Your task to perform on an android device: Search for "asus zenbook" on ebay.com, select the first entry, add it to the cart, then select checkout. Image 0: 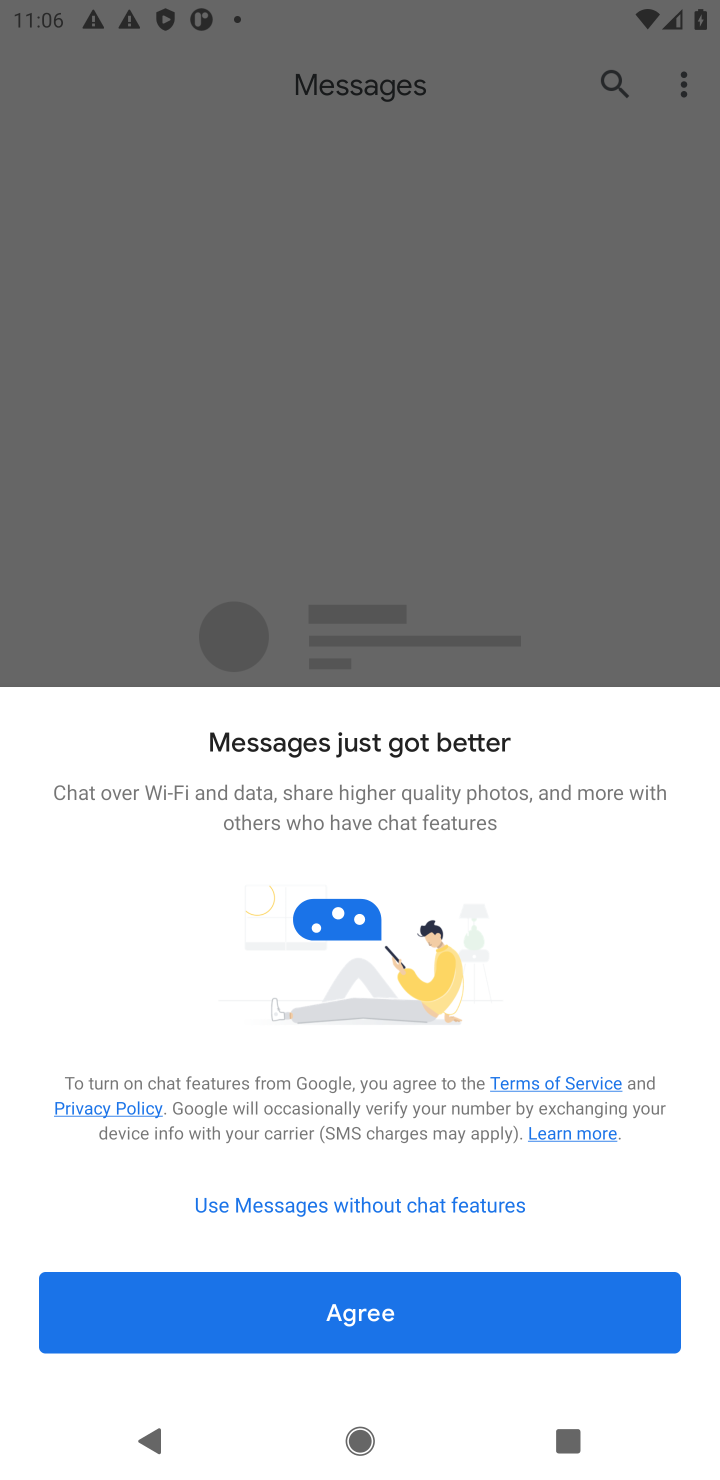
Step 0: press home button
Your task to perform on an android device: Search for "asus zenbook" on ebay.com, select the first entry, add it to the cart, then select checkout. Image 1: 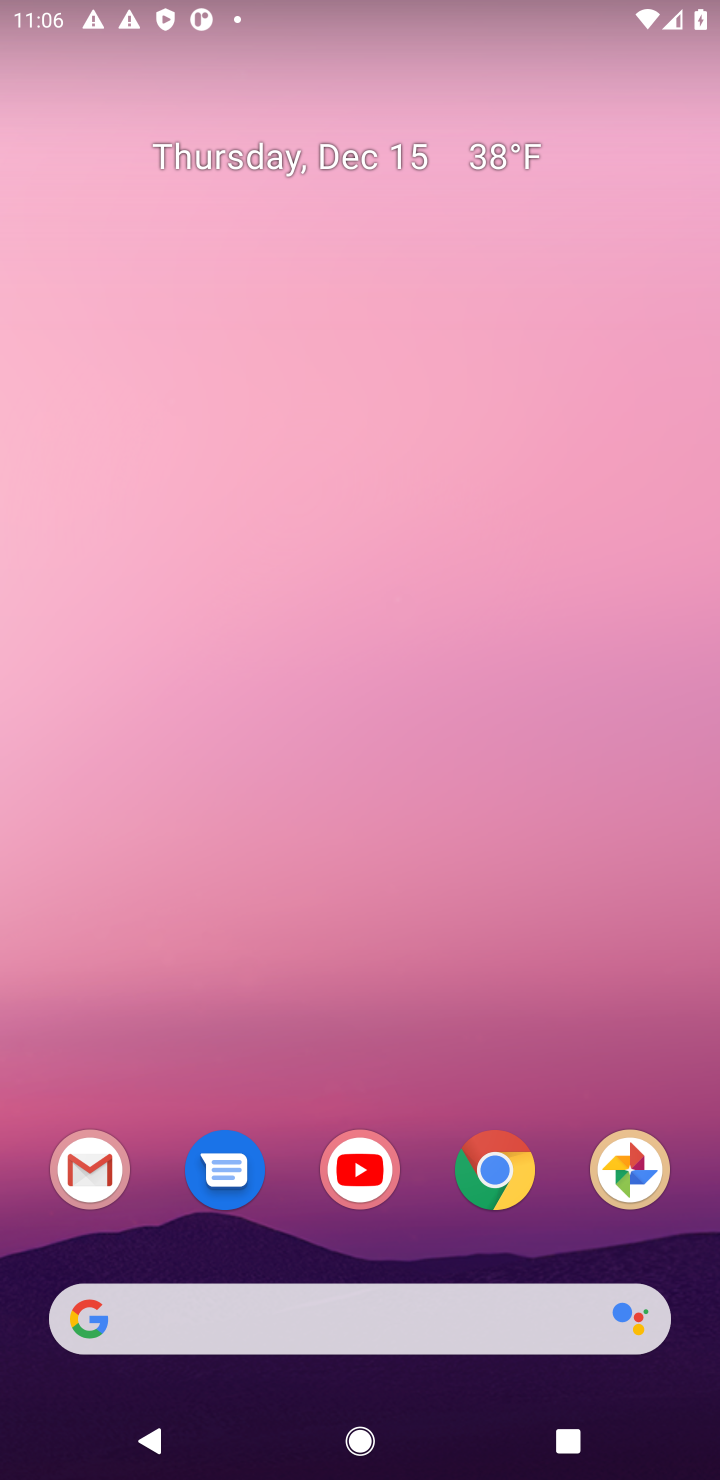
Step 1: click (500, 1152)
Your task to perform on an android device: Search for "asus zenbook" on ebay.com, select the first entry, add it to the cart, then select checkout. Image 2: 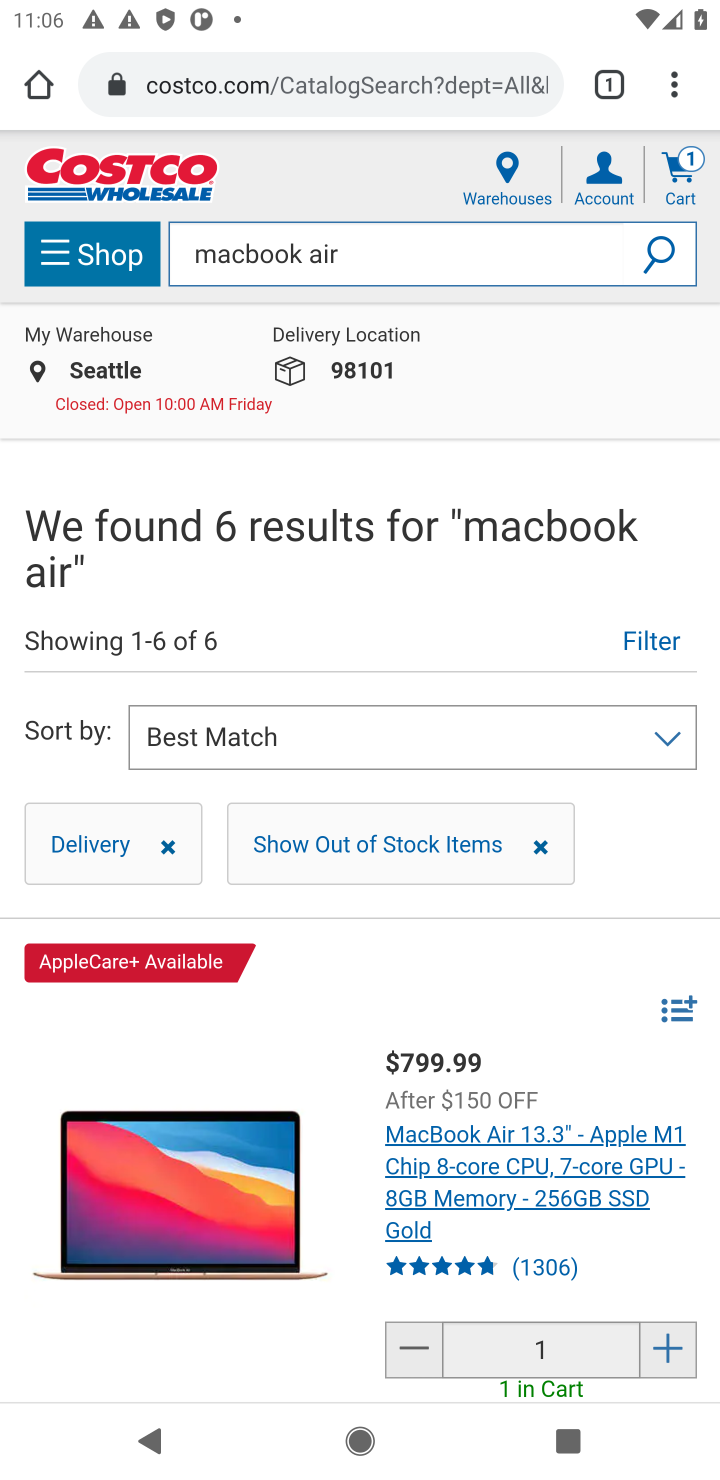
Step 2: click (240, 79)
Your task to perform on an android device: Search for "asus zenbook" on ebay.com, select the first entry, add it to the cart, then select checkout. Image 3: 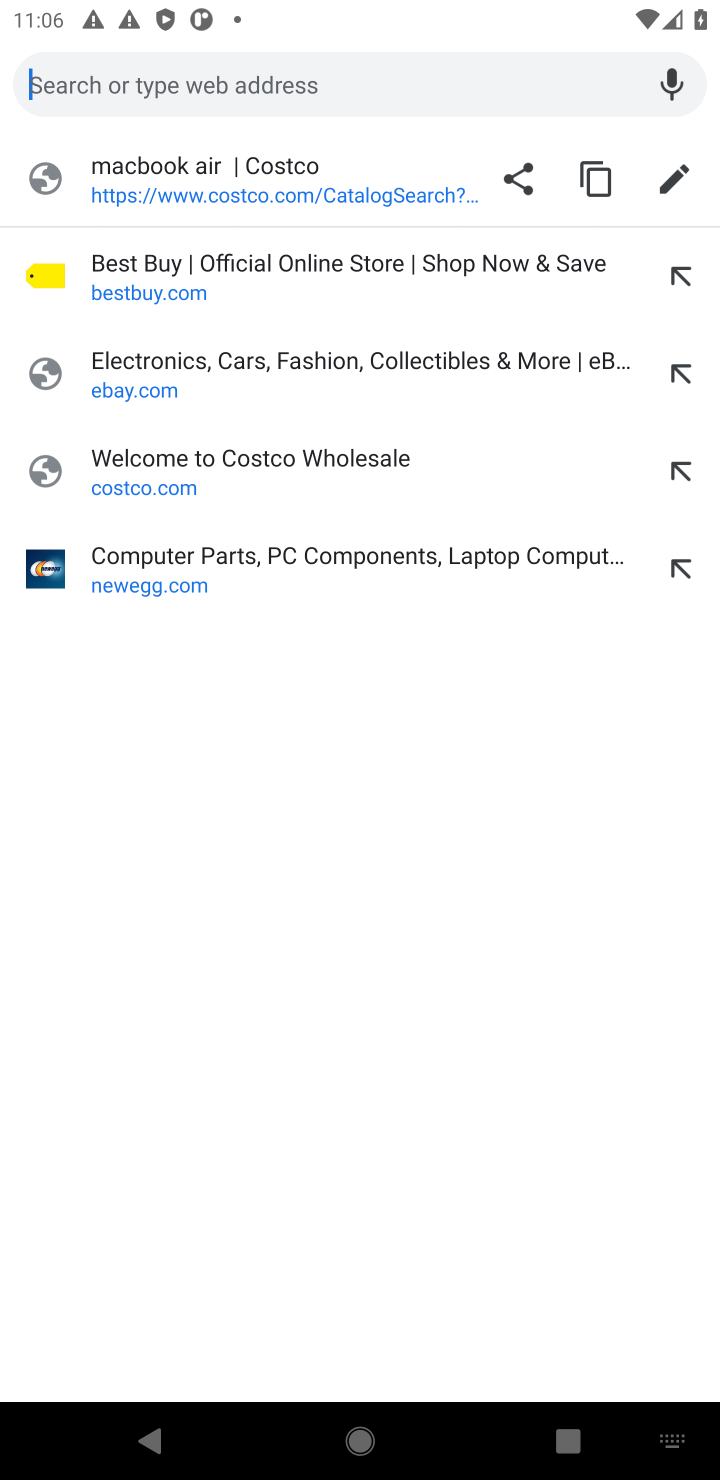
Step 3: click (136, 376)
Your task to perform on an android device: Search for "asus zenbook" on ebay.com, select the first entry, add it to the cart, then select checkout. Image 4: 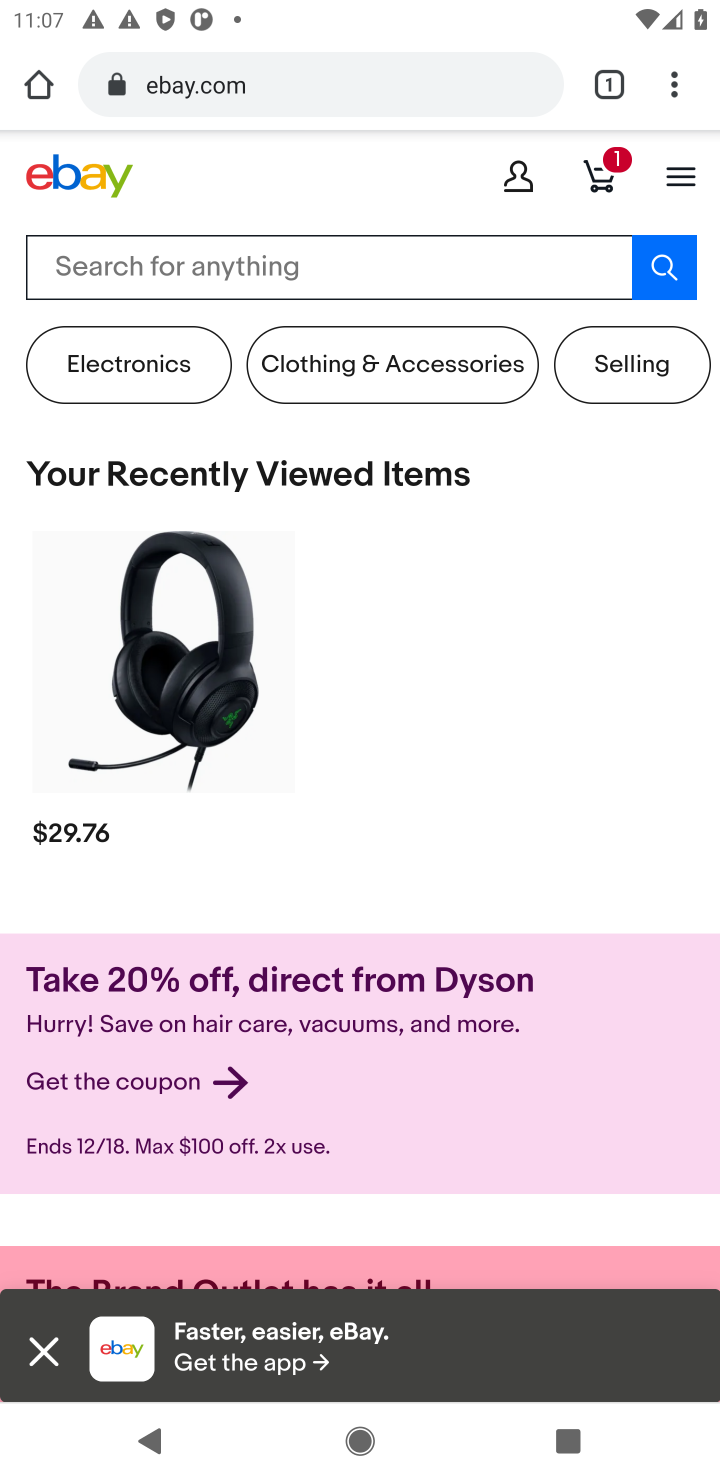
Step 4: click (92, 272)
Your task to perform on an android device: Search for "asus zenbook" on ebay.com, select the first entry, add it to the cart, then select checkout. Image 5: 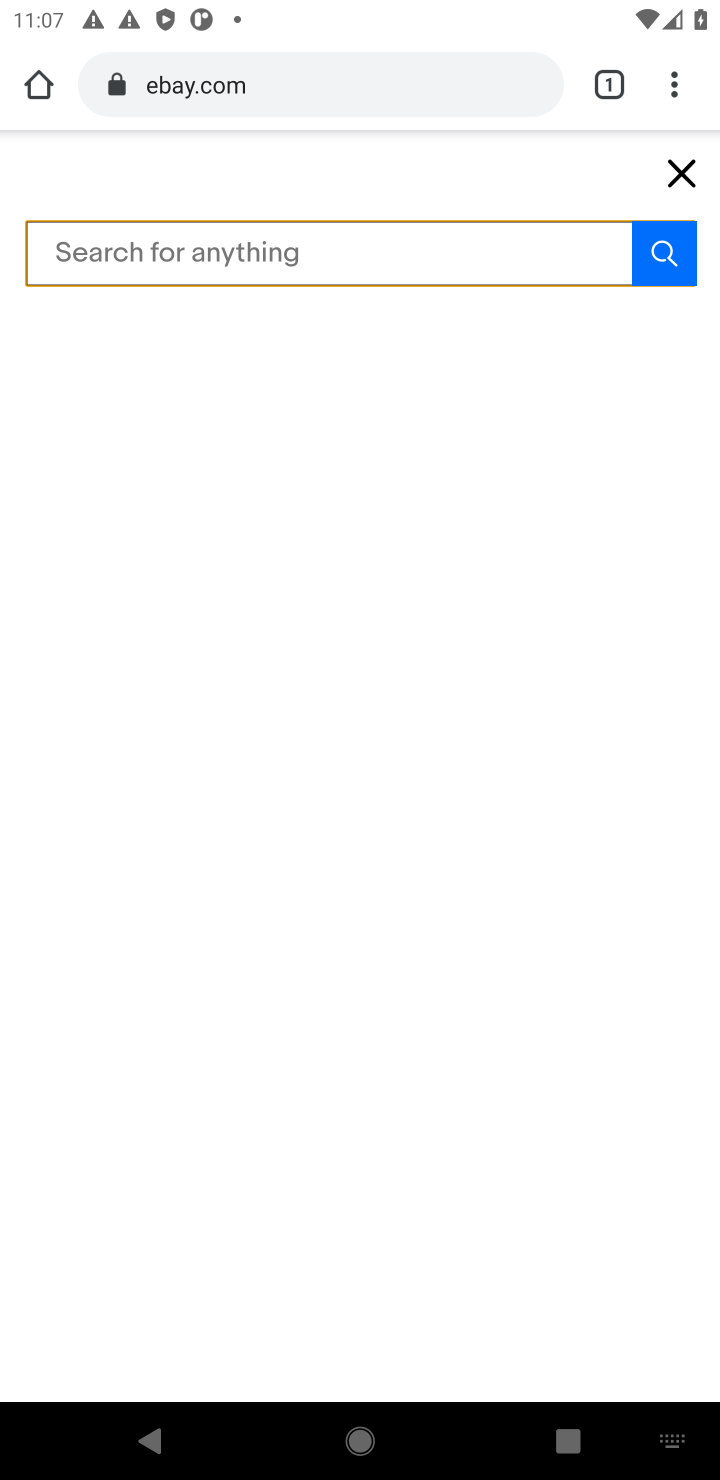
Step 5: click (238, 254)
Your task to perform on an android device: Search for "asus zenbook" on ebay.com, select the first entry, add it to the cart, then select checkout. Image 6: 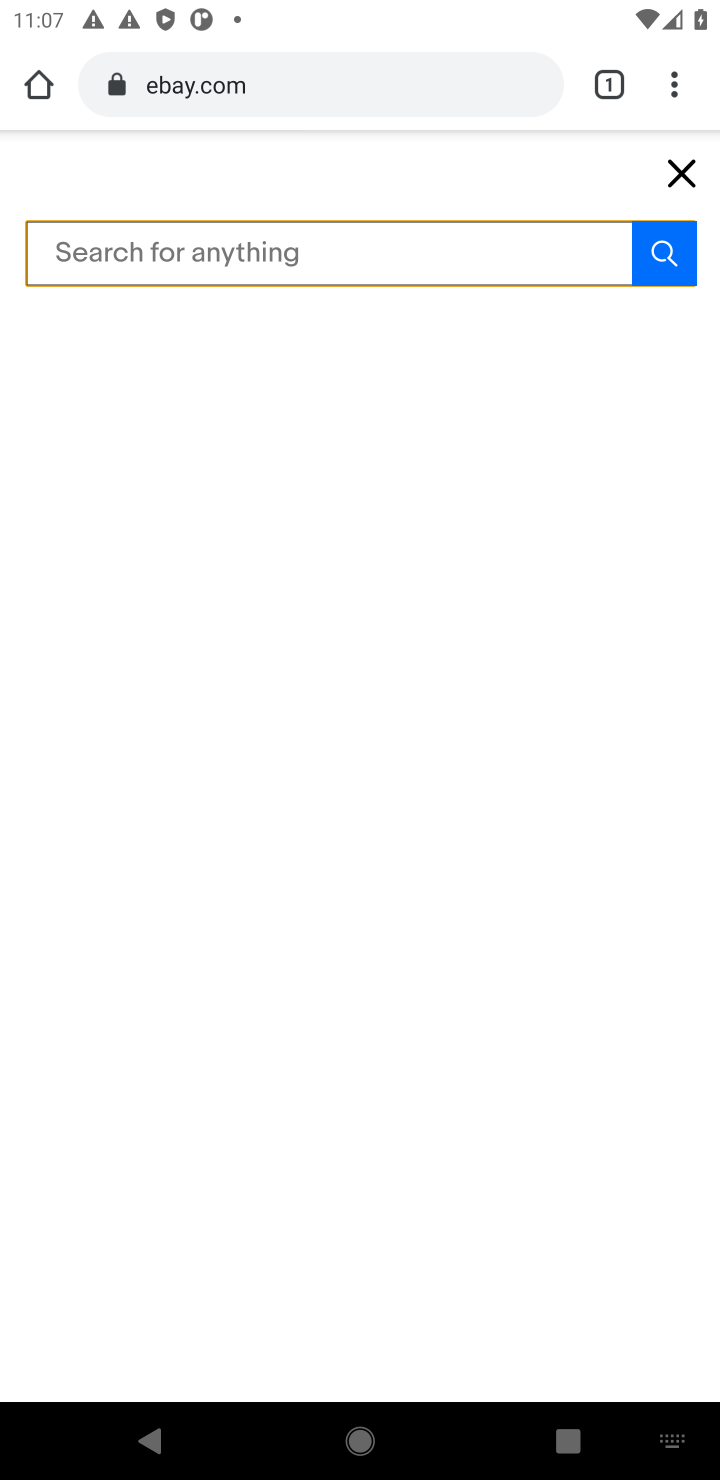
Step 6: type "asus zenbook"
Your task to perform on an android device: Search for "asus zenbook" on ebay.com, select the first entry, add it to the cart, then select checkout. Image 7: 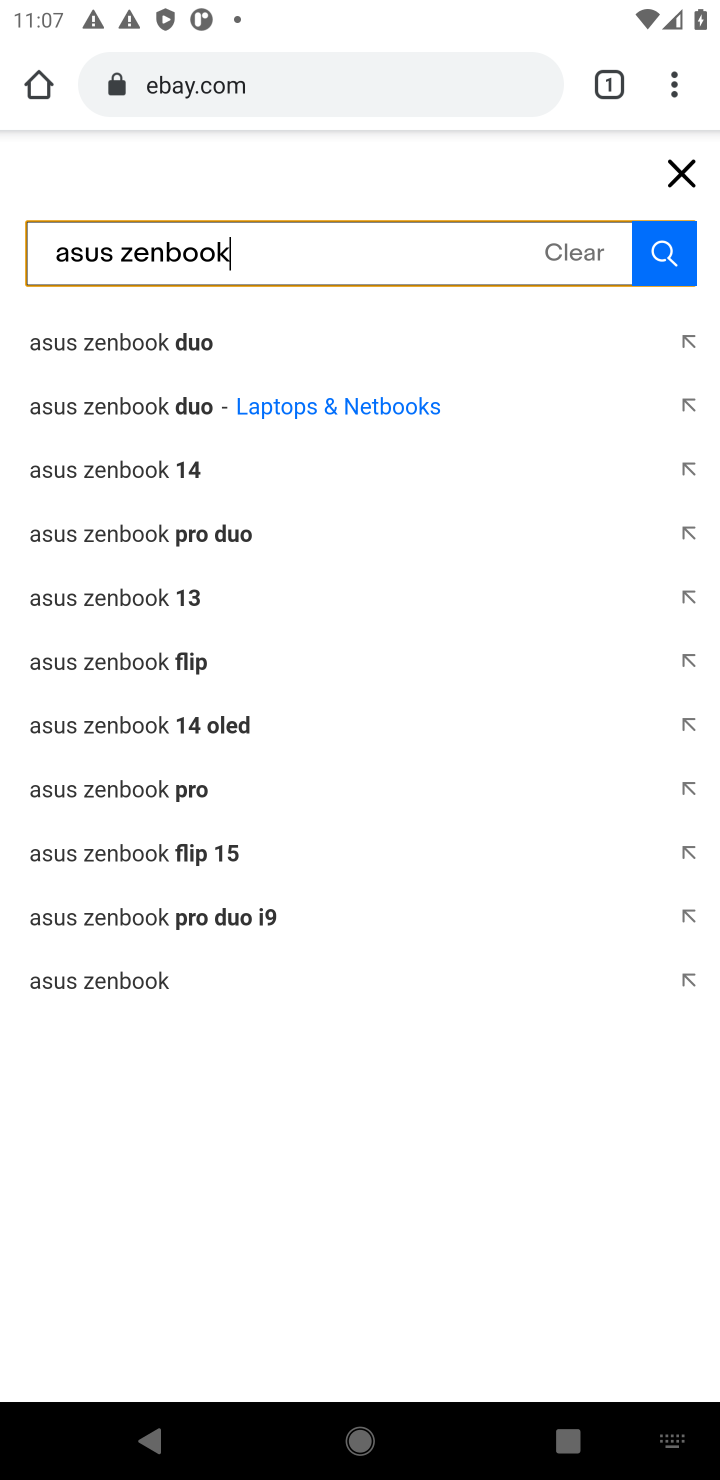
Step 7: click (111, 984)
Your task to perform on an android device: Search for "asus zenbook" on ebay.com, select the first entry, add it to the cart, then select checkout. Image 8: 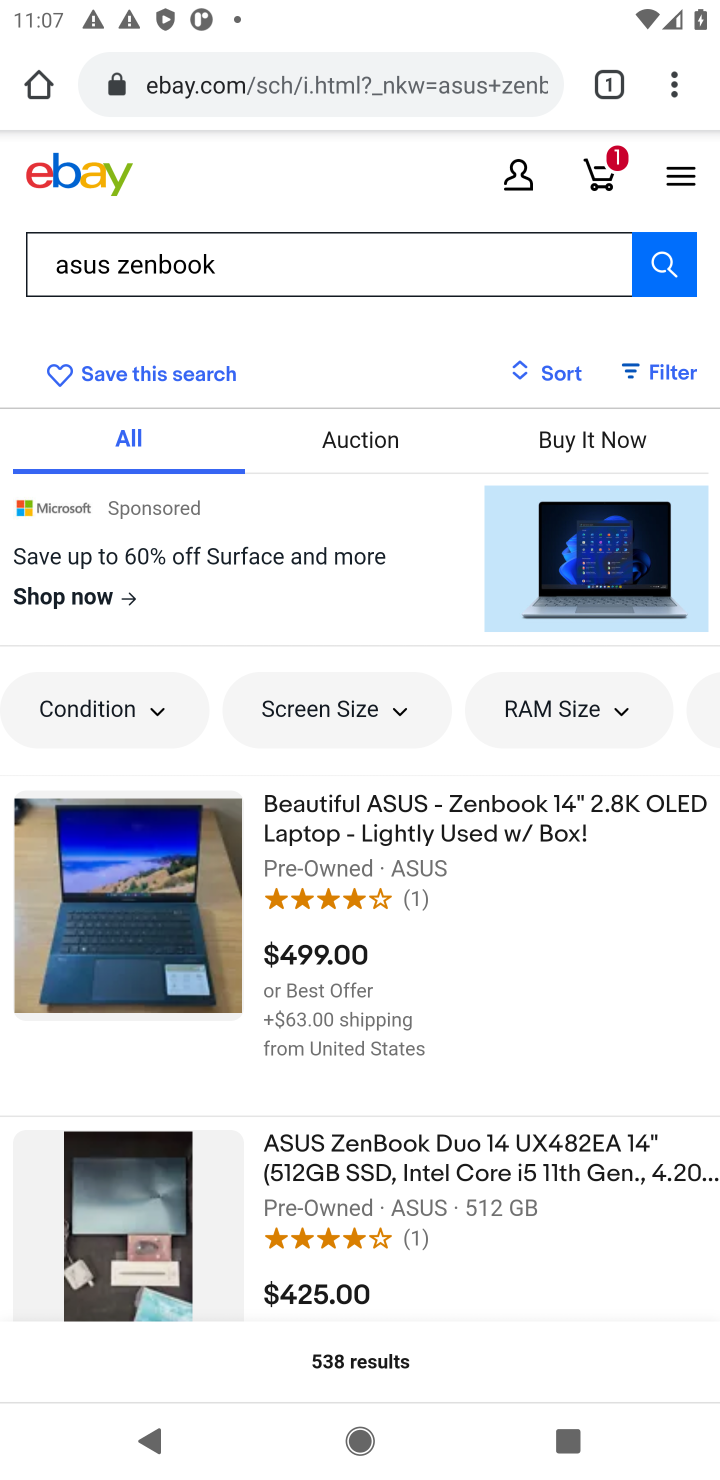
Step 8: click (362, 845)
Your task to perform on an android device: Search for "asus zenbook" on ebay.com, select the first entry, add it to the cart, then select checkout. Image 9: 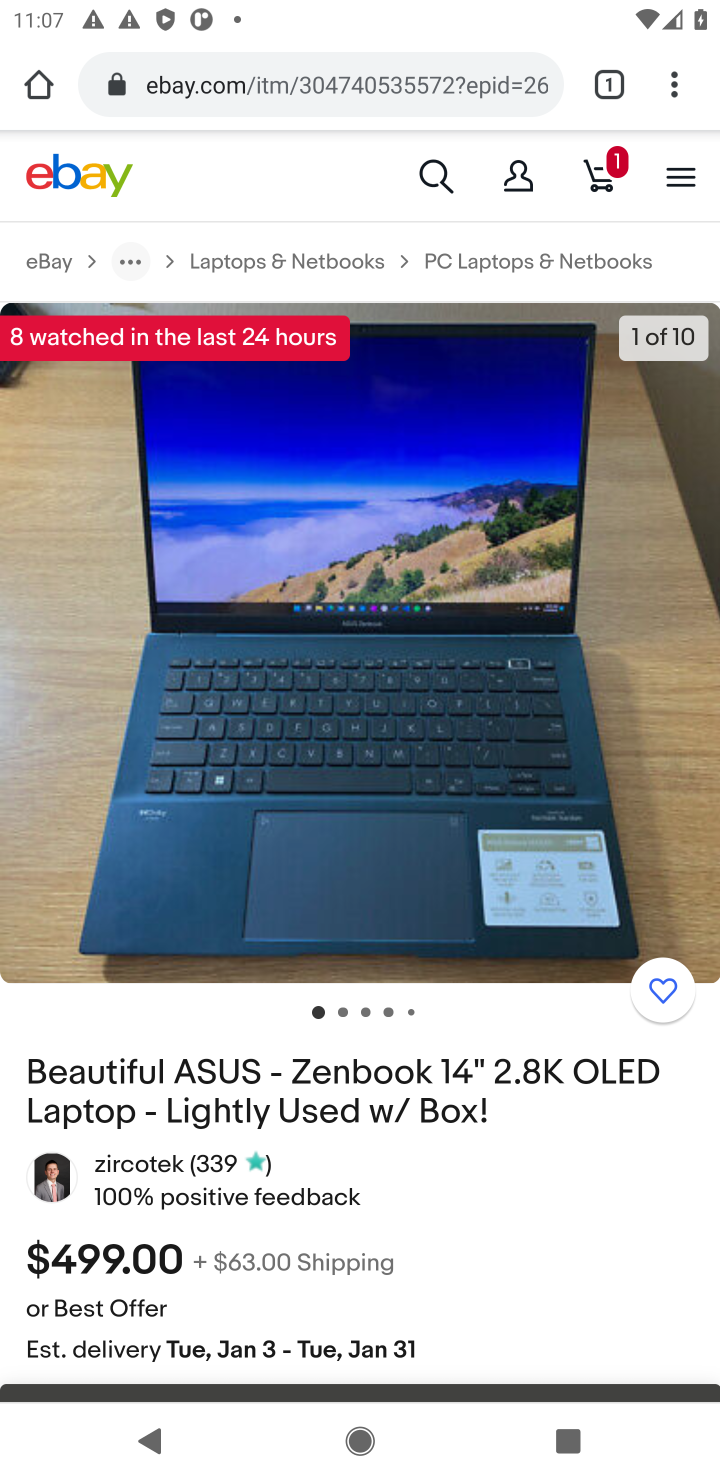
Step 9: drag from (374, 1197) to (354, 585)
Your task to perform on an android device: Search for "asus zenbook" on ebay.com, select the first entry, add it to the cart, then select checkout. Image 10: 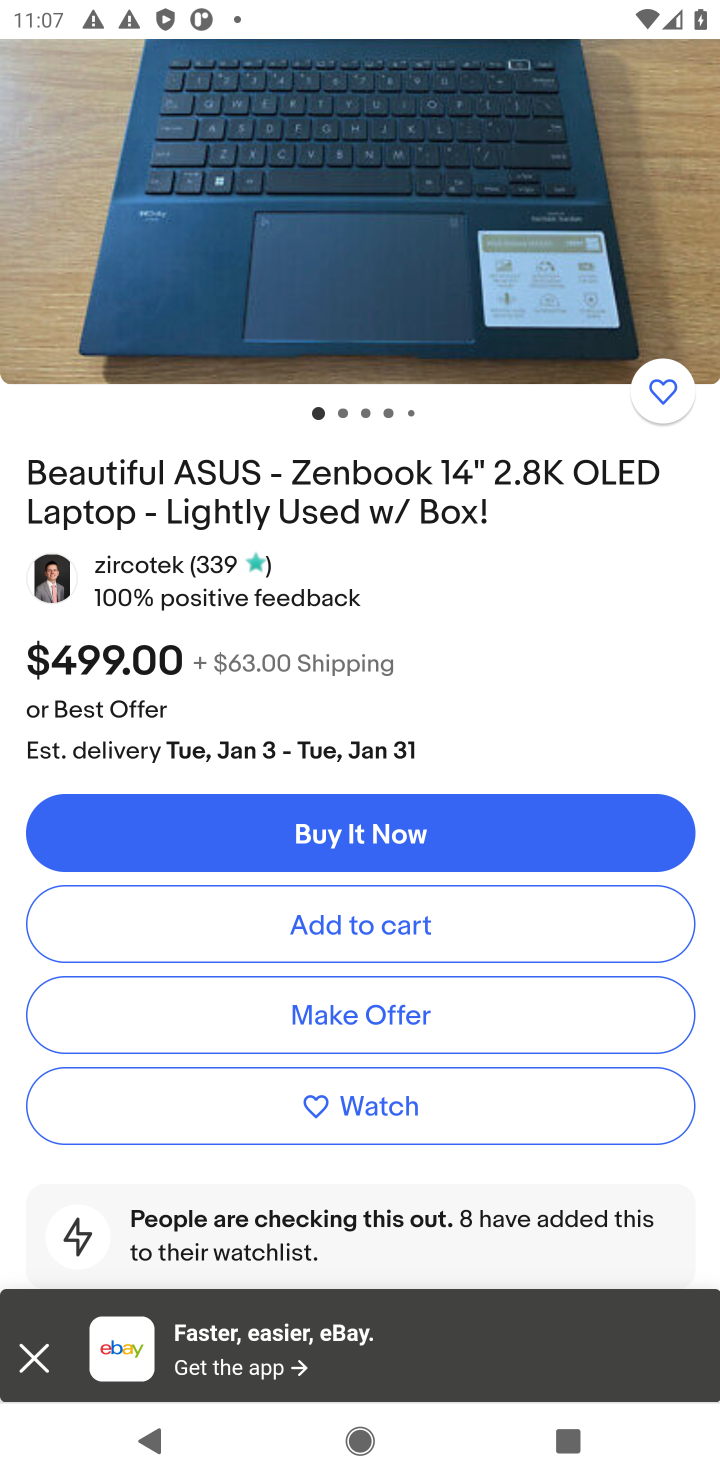
Step 10: click (297, 920)
Your task to perform on an android device: Search for "asus zenbook" on ebay.com, select the first entry, add it to the cart, then select checkout. Image 11: 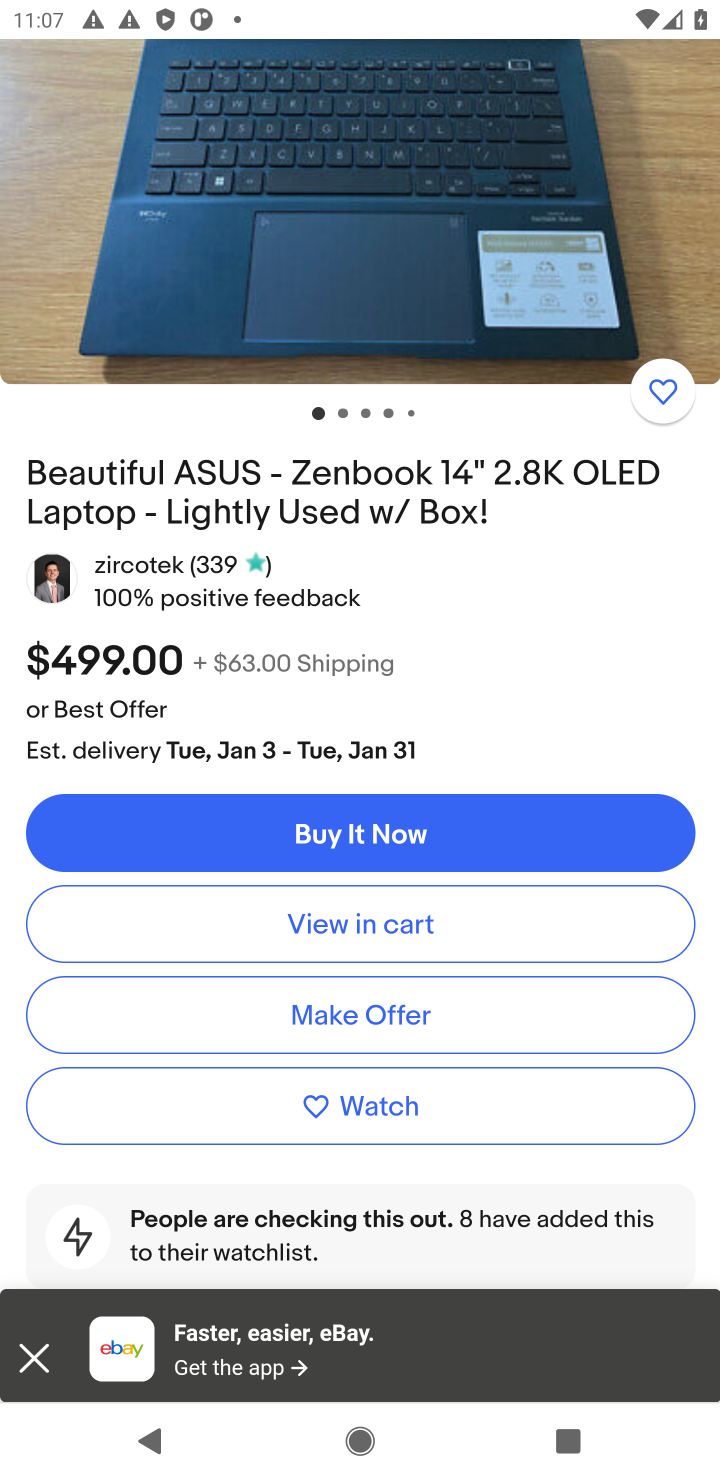
Step 11: click (297, 920)
Your task to perform on an android device: Search for "asus zenbook" on ebay.com, select the first entry, add it to the cart, then select checkout. Image 12: 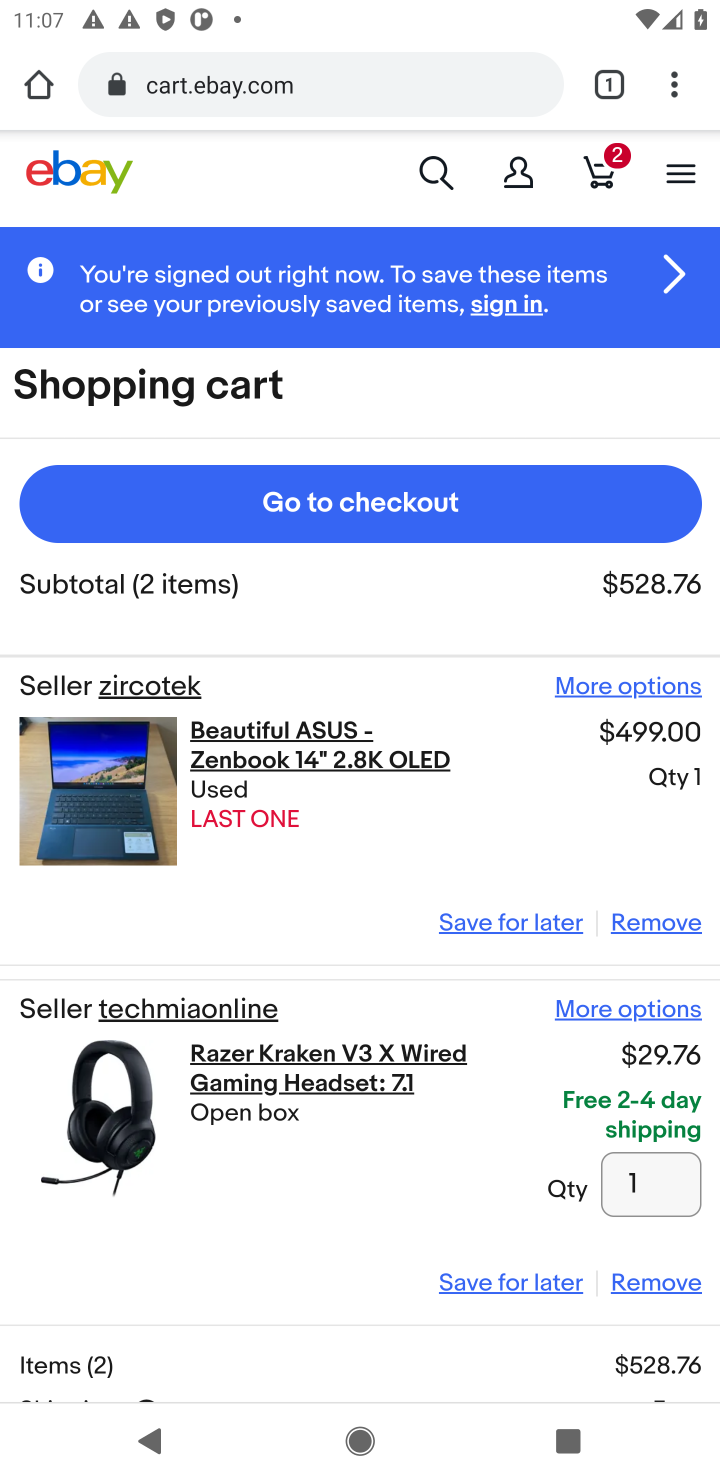
Step 12: click (345, 503)
Your task to perform on an android device: Search for "asus zenbook" on ebay.com, select the first entry, add it to the cart, then select checkout. Image 13: 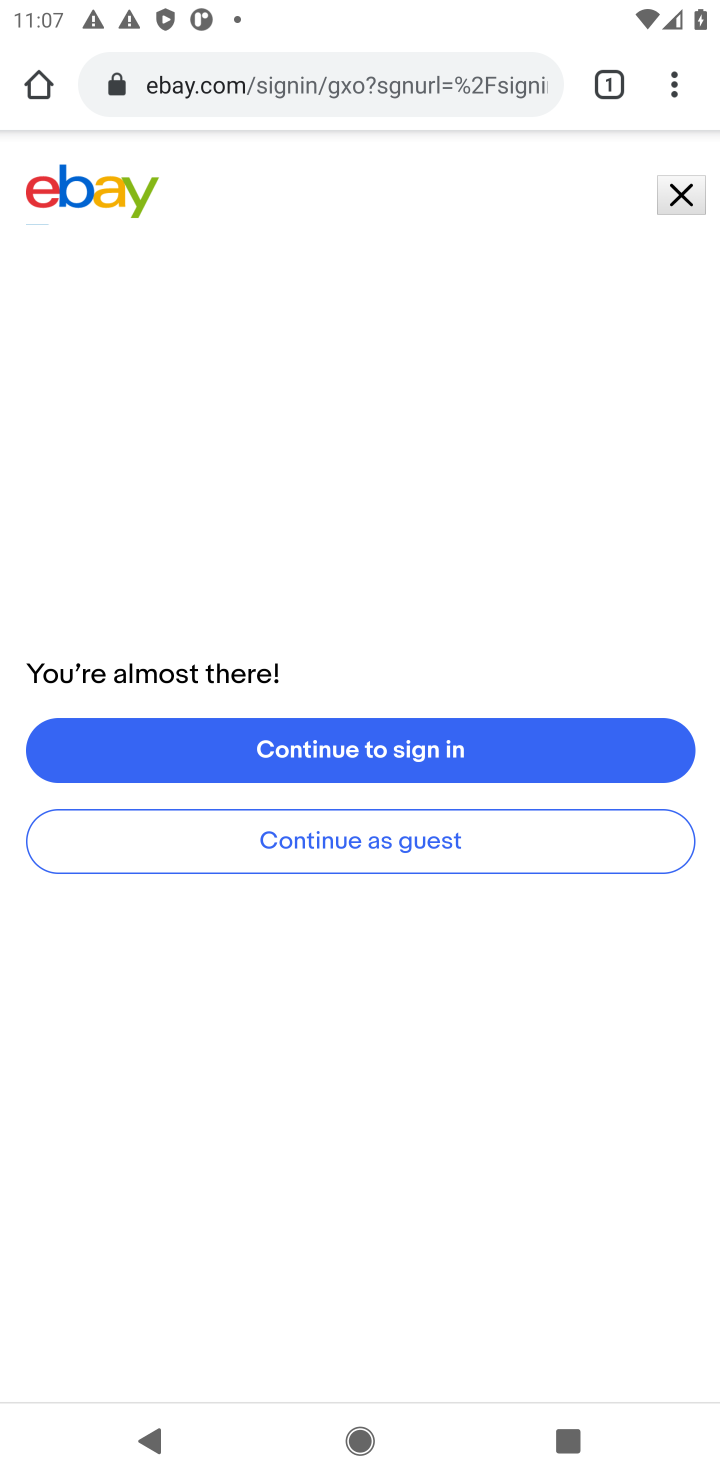
Step 13: task complete